Your task to perform on an android device: change notifications settings Image 0: 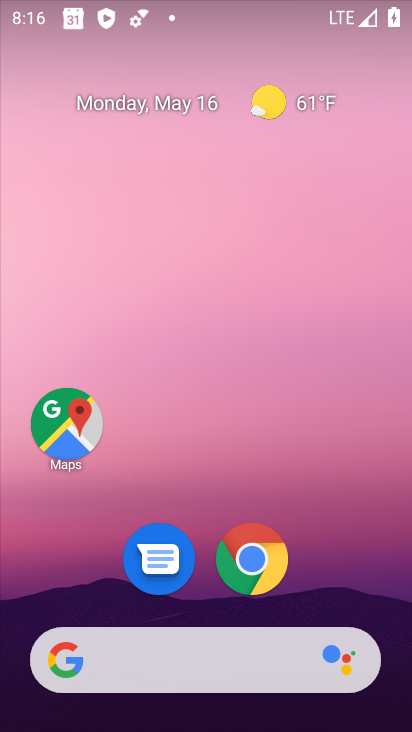
Step 0: drag from (222, 546) to (226, 120)
Your task to perform on an android device: change notifications settings Image 1: 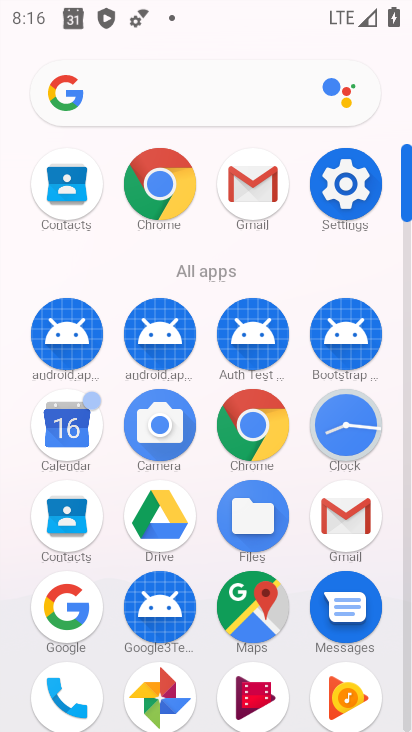
Step 1: click (350, 180)
Your task to perform on an android device: change notifications settings Image 2: 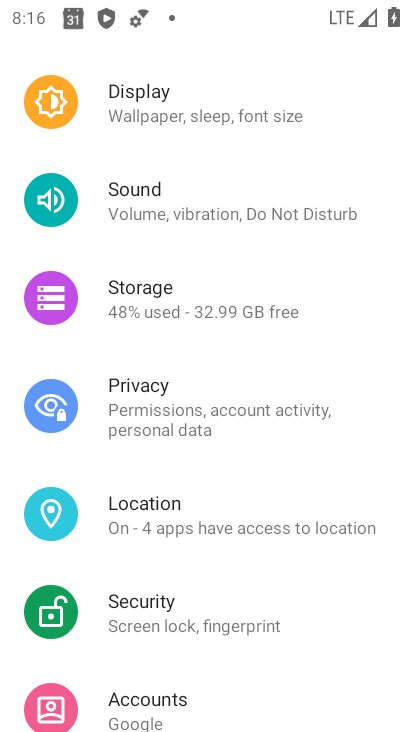
Step 2: drag from (252, 201) to (246, 574)
Your task to perform on an android device: change notifications settings Image 3: 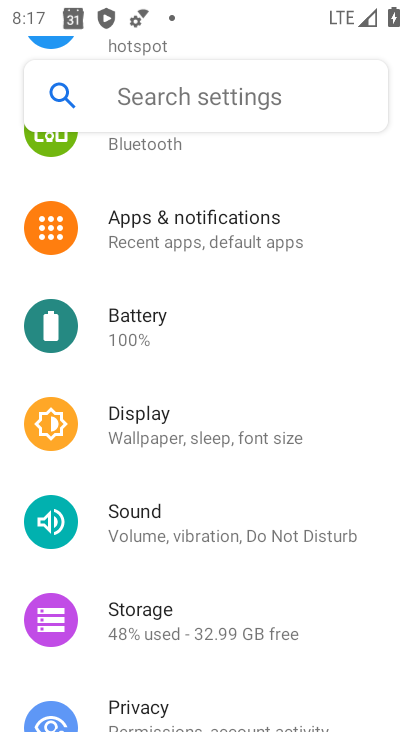
Step 3: click (206, 240)
Your task to perform on an android device: change notifications settings Image 4: 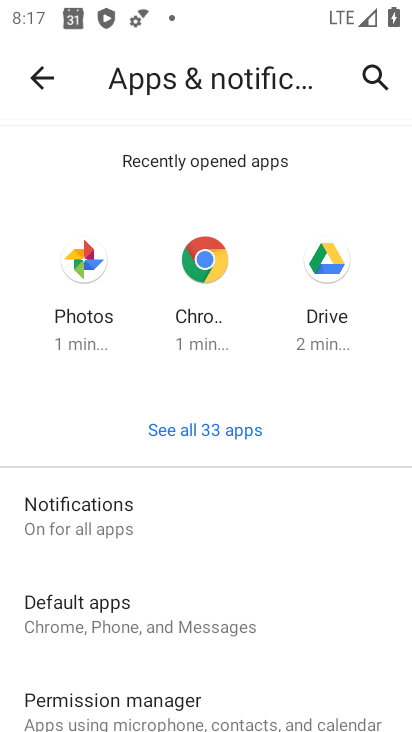
Step 4: click (157, 518)
Your task to perform on an android device: change notifications settings Image 5: 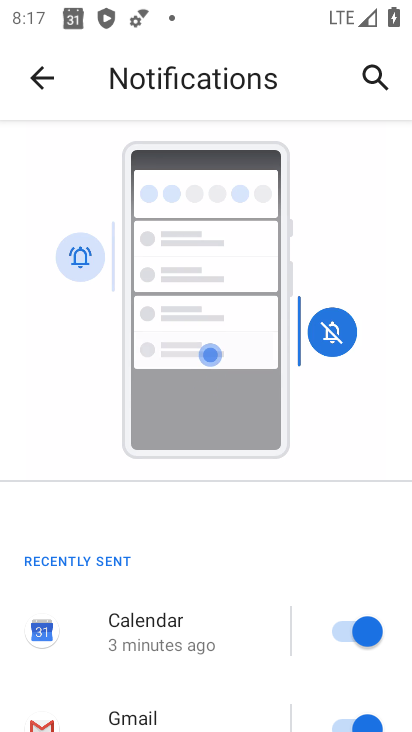
Step 5: drag from (152, 657) to (224, 253)
Your task to perform on an android device: change notifications settings Image 6: 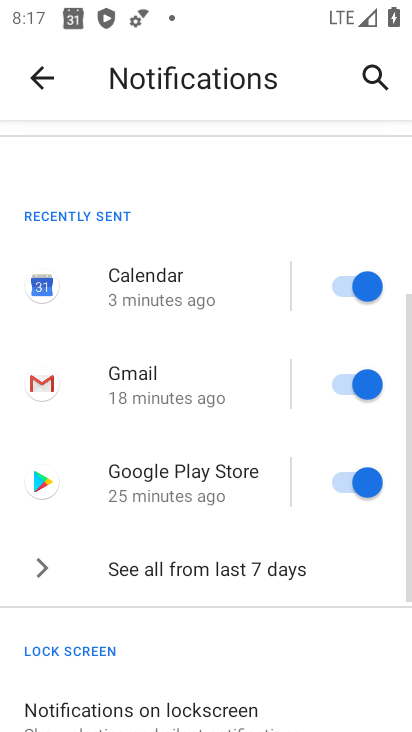
Step 6: drag from (169, 646) to (196, 293)
Your task to perform on an android device: change notifications settings Image 7: 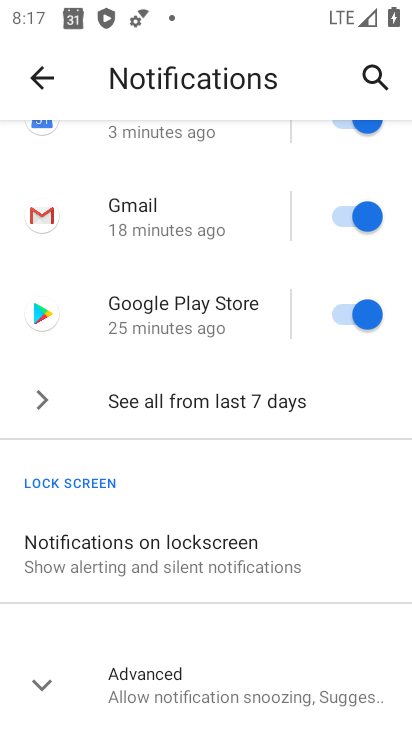
Step 7: click (210, 689)
Your task to perform on an android device: change notifications settings Image 8: 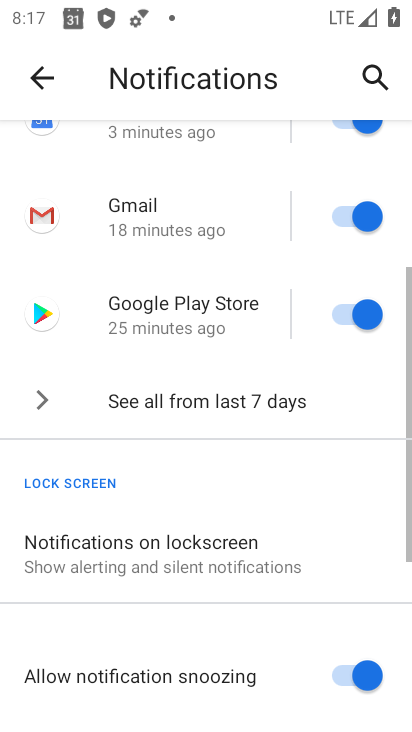
Step 8: drag from (207, 649) to (231, 195)
Your task to perform on an android device: change notifications settings Image 9: 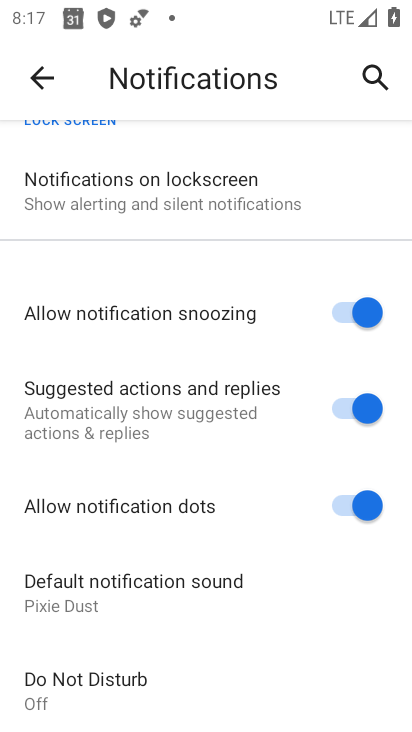
Step 9: click (367, 308)
Your task to perform on an android device: change notifications settings Image 10: 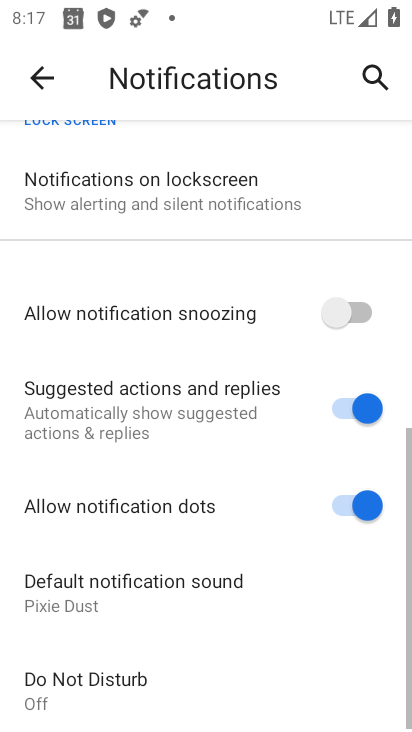
Step 10: task complete